Your task to perform on an android device: turn on sleep mode Image 0: 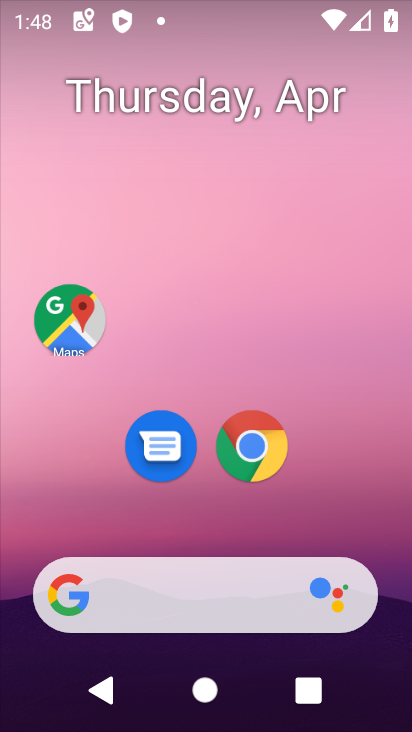
Step 0: click (63, 325)
Your task to perform on an android device: turn on sleep mode Image 1: 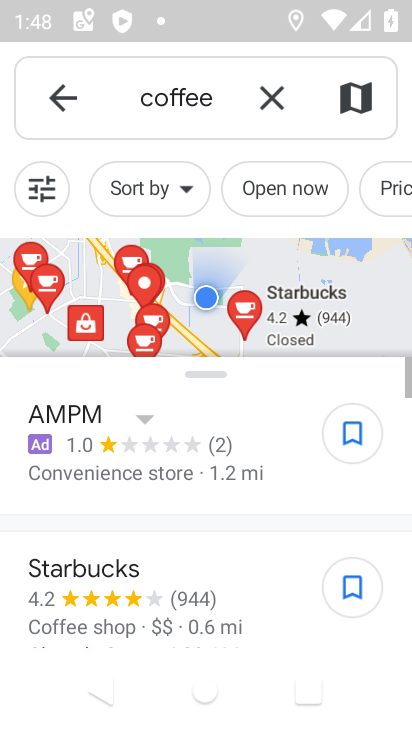
Step 1: task complete